Your task to perform on an android device: Open the web browser Image 0: 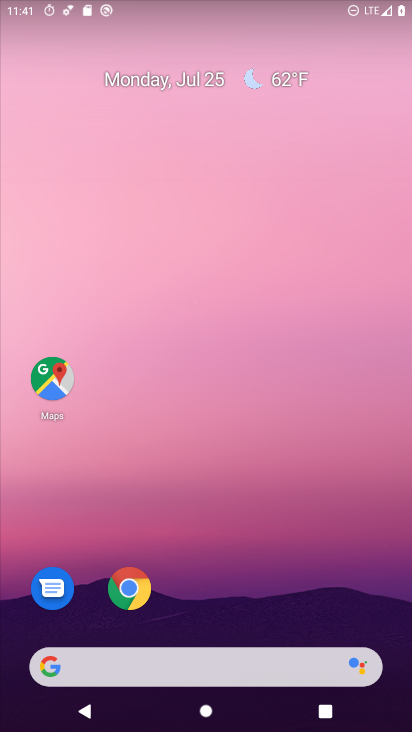
Step 0: drag from (28, 593) to (231, 154)
Your task to perform on an android device: Open the web browser Image 1: 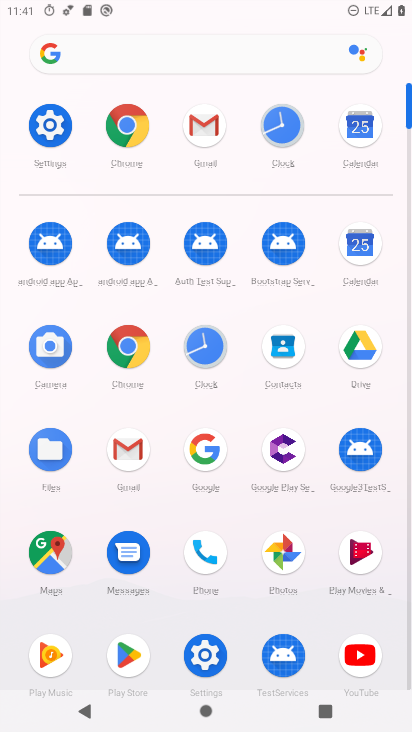
Step 1: click (137, 133)
Your task to perform on an android device: Open the web browser Image 2: 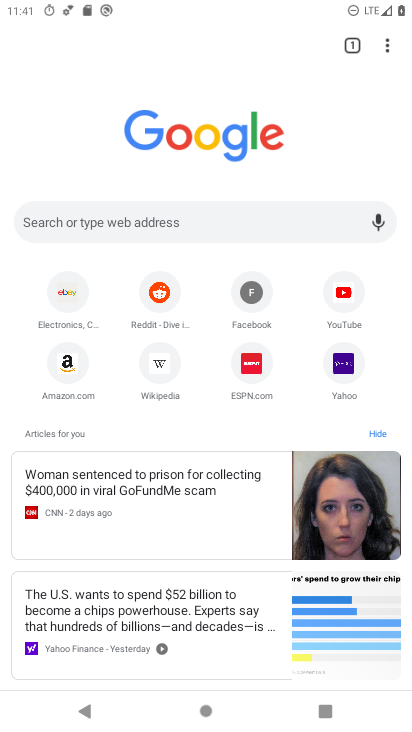
Step 2: task complete